Your task to perform on an android device: clear history in the chrome app Image 0: 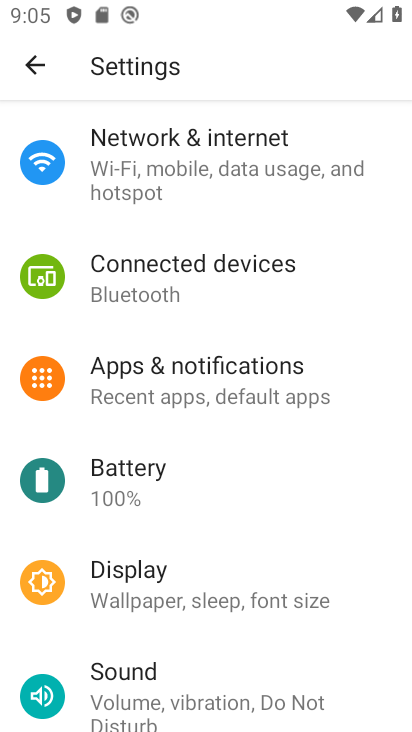
Step 0: press home button
Your task to perform on an android device: clear history in the chrome app Image 1: 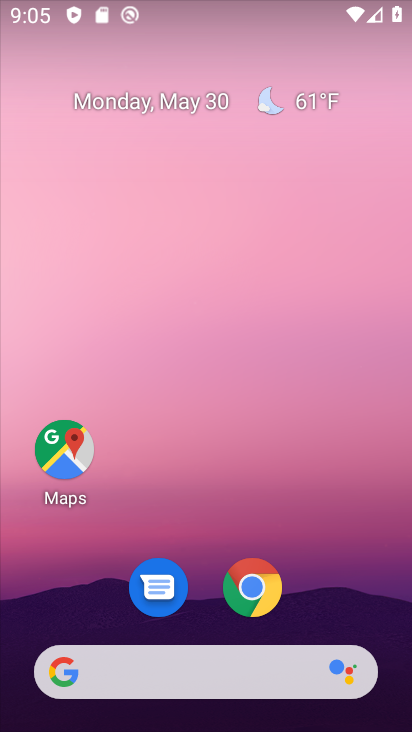
Step 1: click (247, 592)
Your task to perform on an android device: clear history in the chrome app Image 2: 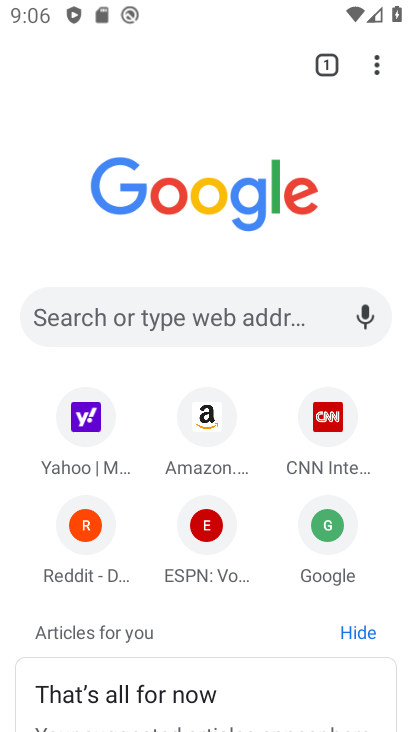
Step 2: click (381, 53)
Your task to perform on an android device: clear history in the chrome app Image 3: 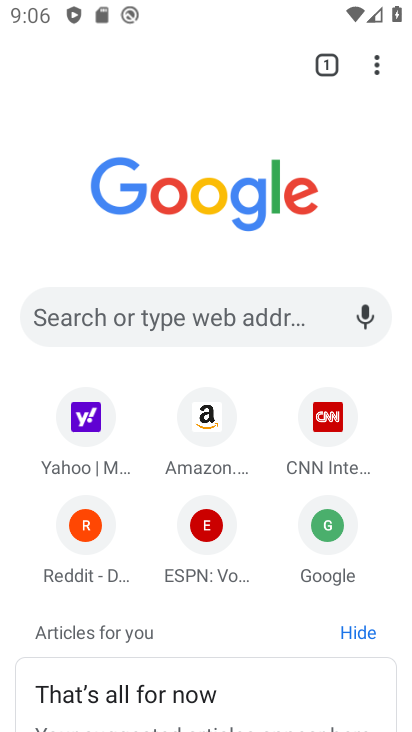
Step 3: drag from (373, 68) to (179, 352)
Your task to perform on an android device: clear history in the chrome app Image 4: 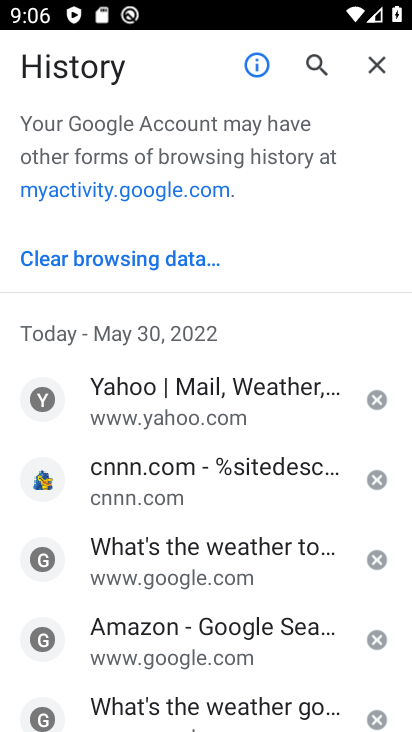
Step 4: click (138, 257)
Your task to perform on an android device: clear history in the chrome app Image 5: 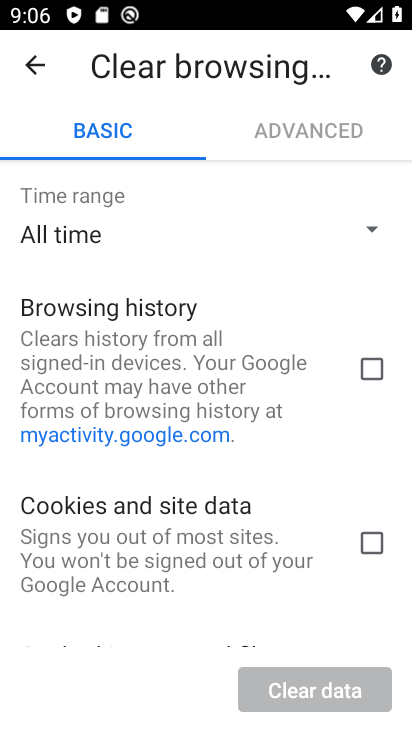
Step 5: click (329, 369)
Your task to perform on an android device: clear history in the chrome app Image 6: 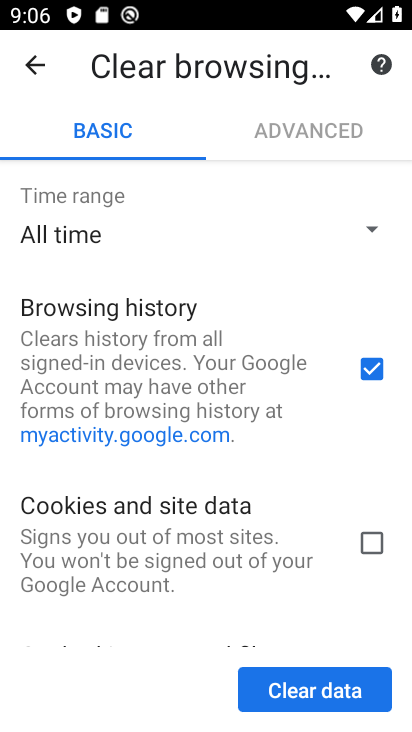
Step 6: click (353, 683)
Your task to perform on an android device: clear history in the chrome app Image 7: 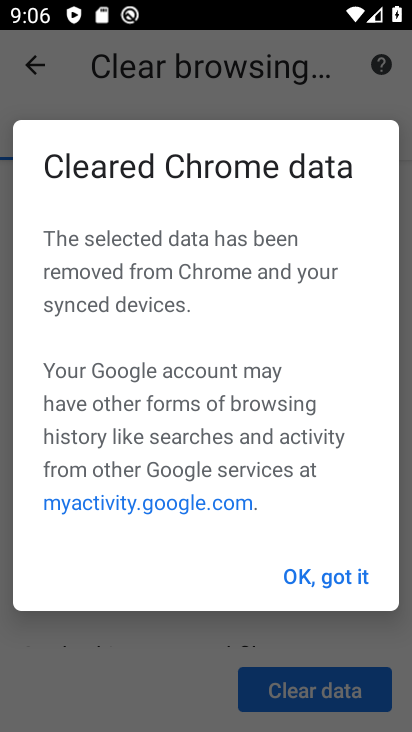
Step 7: click (328, 576)
Your task to perform on an android device: clear history in the chrome app Image 8: 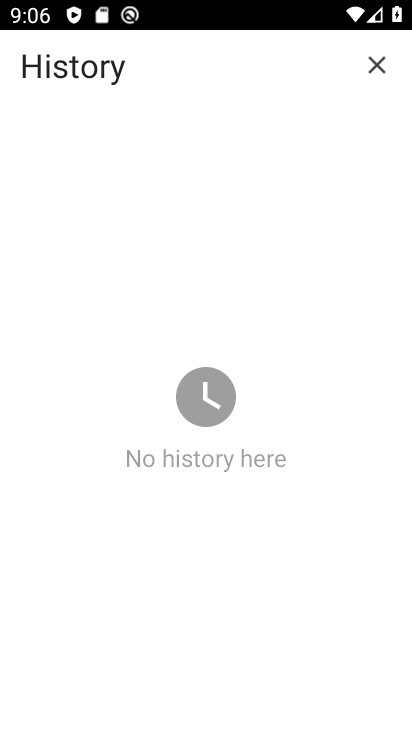
Step 8: task complete